Your task to perform on an android device: Open notification settings Image 0: 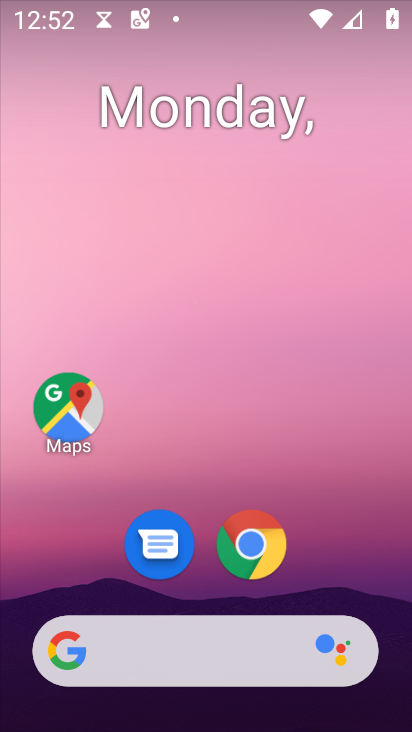
Step 0: drag from (320, 570) to (333, 226)
Your task to perform on an android device: Open notification settings Image 1: 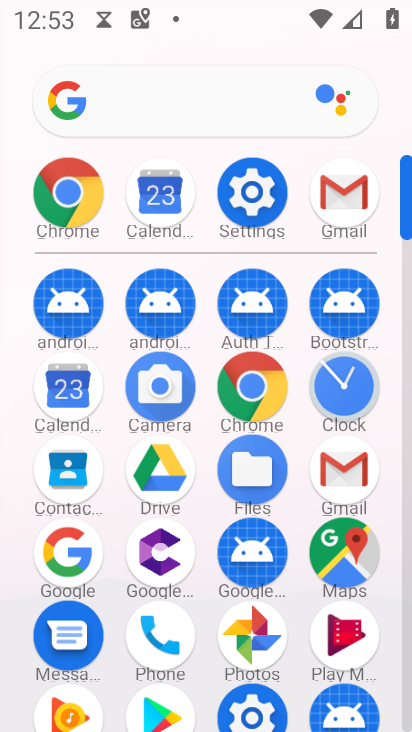
Step 1: click (262, 200)
Your task to perform on an android device: Open notification settings Image 2: 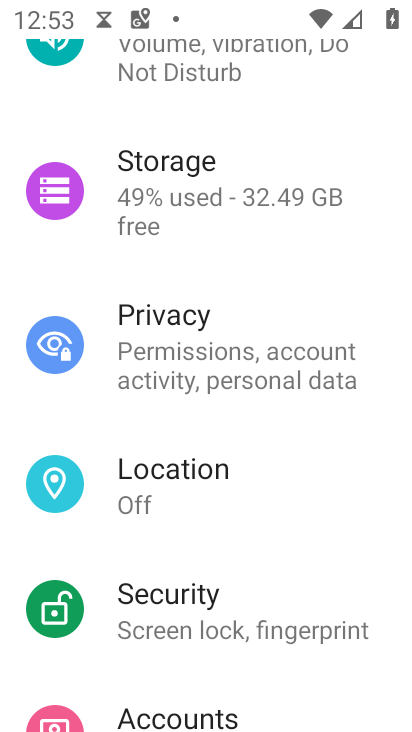
Step 2: drag from (264, 183) to (275, 428)
Your task to perform on an android device: Open notification settings Image 3: 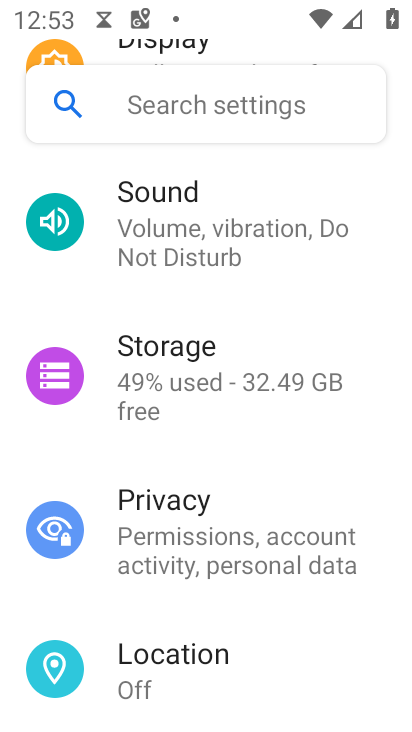
Step 3: drag from (220, 182) to (286, 655)
Your task to perform on an android device: Open notification settings Image 4: 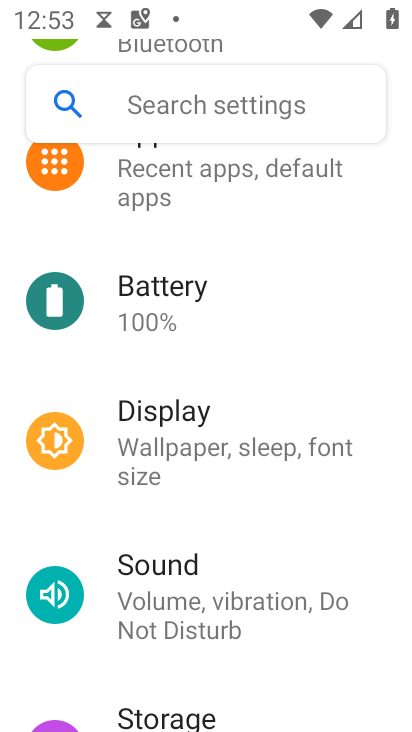
Step 4: drag from (195, 190) to (263, 620)
Your task to perform on an android device: Open notification settings Image 5: 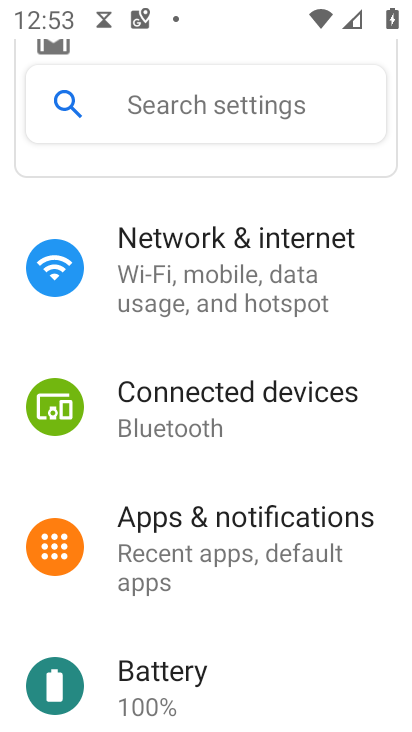
Step 5: click (265, 271)
Your task to perform on an android device: Open notification settings Image 6: 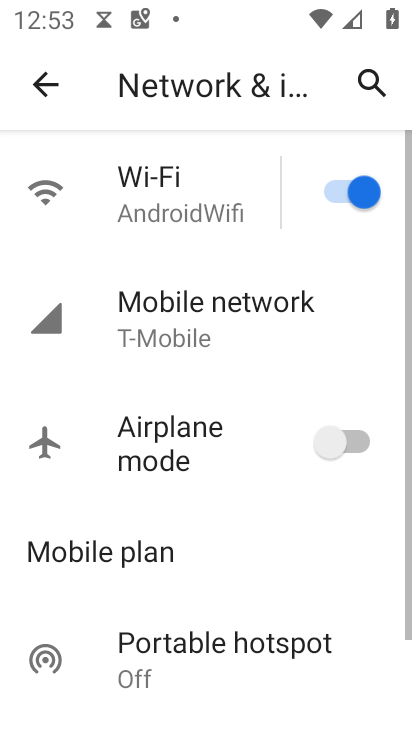
Step 6: click (59, 81)
Your task to perform on an android device: Open notification settings Image 7: 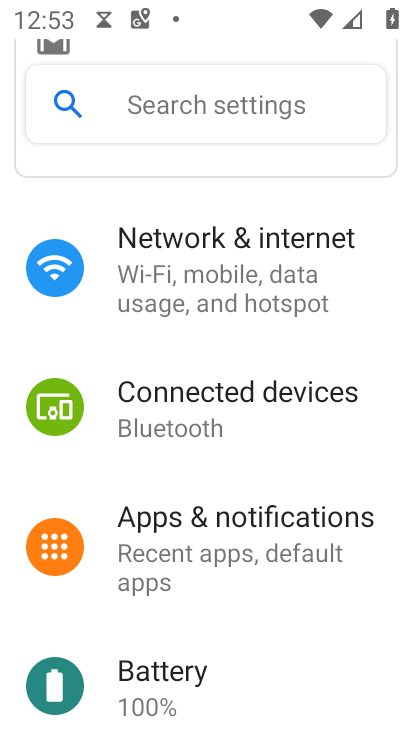
Step 7: click (209, 371)
Your task to perform on an android device: Open notification settings Image 8: 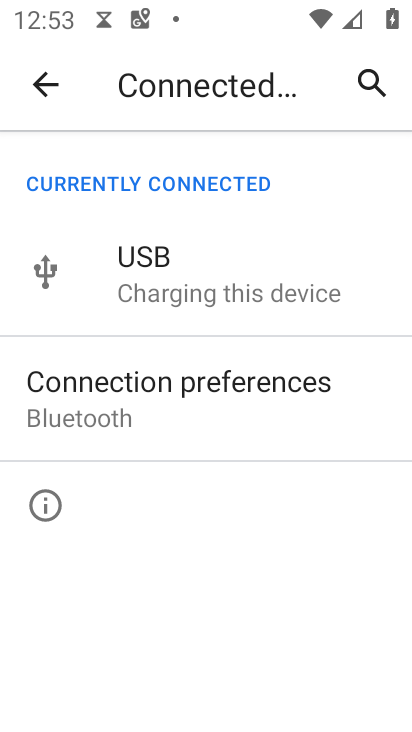
Step 8: click (44, 66)
Your task to perform on an android device: Open notification settings Image 9: 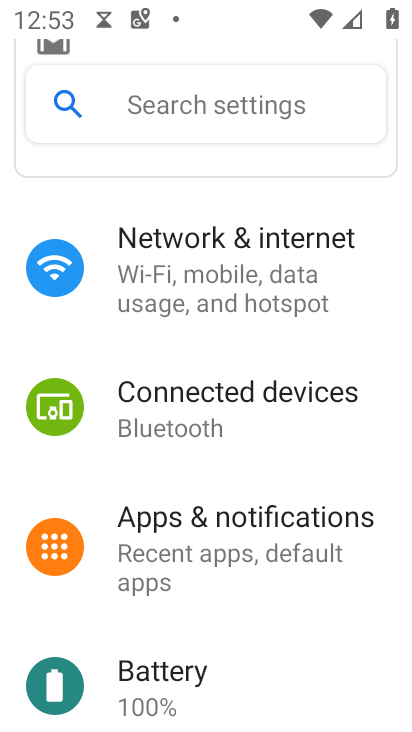
Step 9: click (280, 536)
Your task to perform on an android device: Open notification settings Image 10: 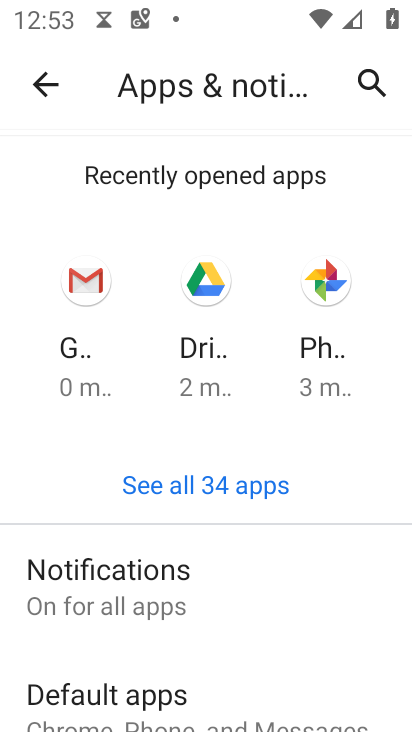
Step 10: task complete